Your task to perform on an android device: all mails in gmail Image 0: 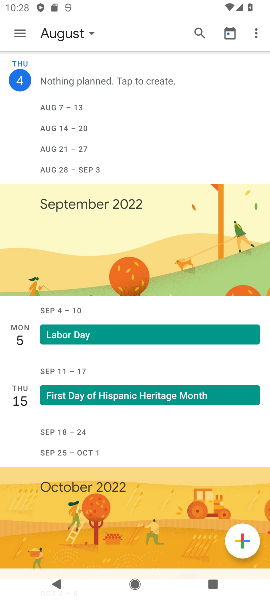
Step 0: press home button
Your task to perform on an android device: all mails in gmail Image 1: 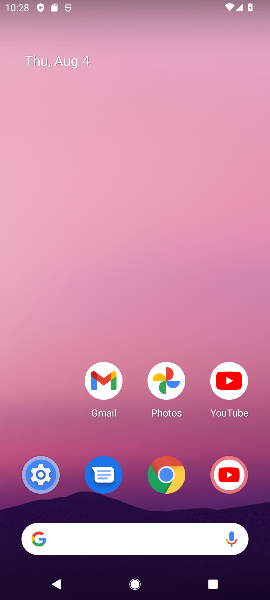
Step 1: click (106, 387)
Your task to perform on an android device: all mails in gmail Image 2: 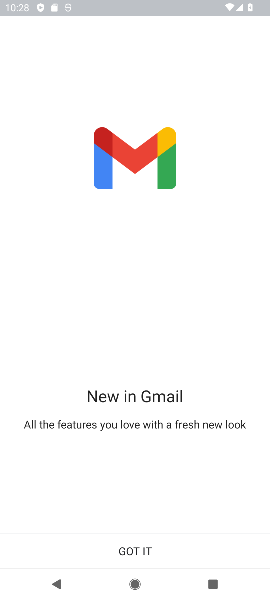
Step 2: click (136, 553)
Your task to perform on an android device: all mails in gmail Image 3: 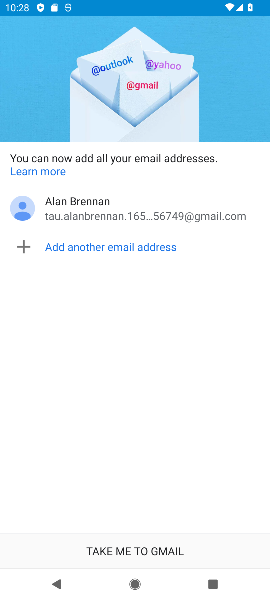
Step 3: click (140, 549)
Your task to perform on an android device: all mails in gmail Image 4: 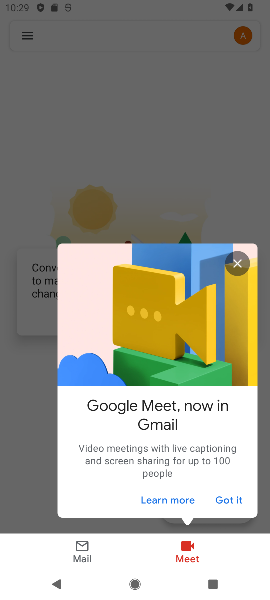
Step 4: click (242, 264)
Your task to perform on an android device: all mails in gmail Image 5: 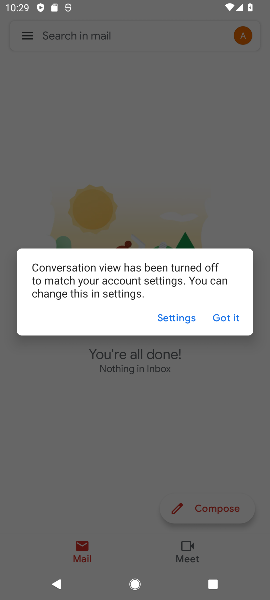
Step 5: click (240, 319)
Your task to perform on an android device: all mails in gmail Image 6: 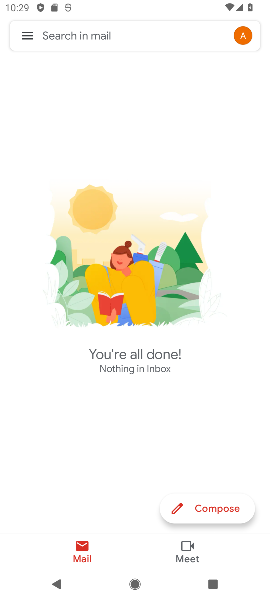
Step 6: click (26, 32)
Your task to perform on an android device: all mails in gmail Image 7: 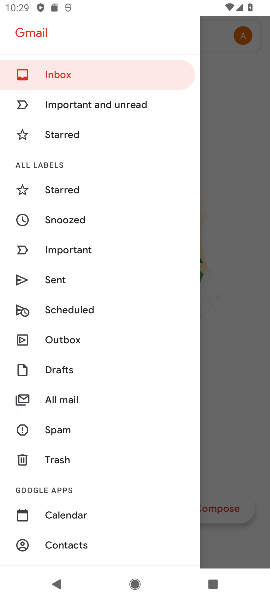
Step 7: click (65, 402)
Your task to perform on an android device: all mails in gmail Image 8: 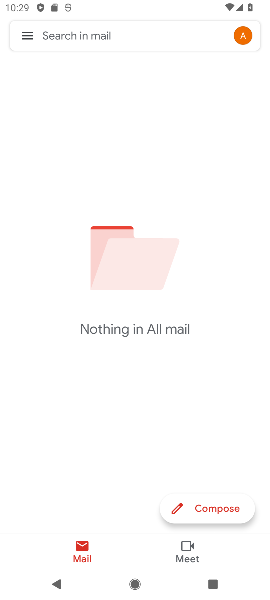
Step 8: task complete